Your task to perform on an android device: Open internet settings Image 0: 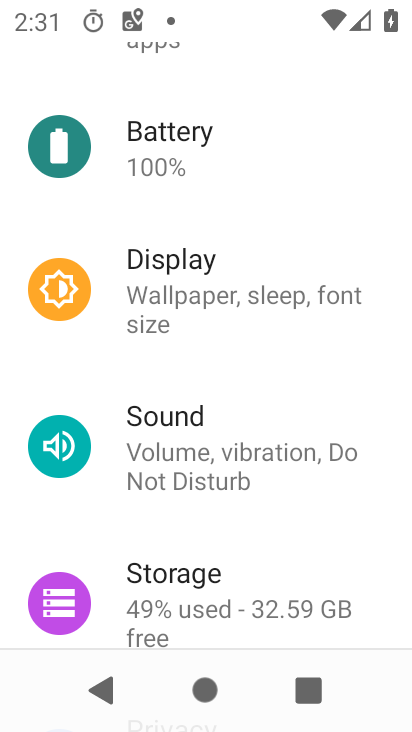
Step 0: drag from (229, 178) to (231, 720)
Your task to perform on an android device: Open internet settings Image 1: 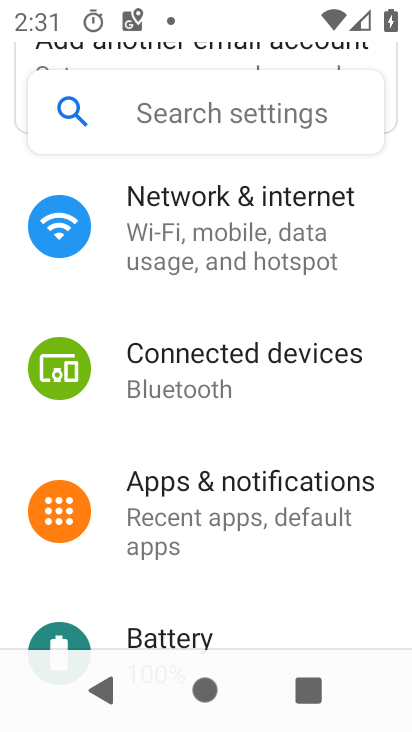
Step 1: drag from (213, 250) to (213, 573)
Your task to perform on an android device: Open internet settings Image 2: 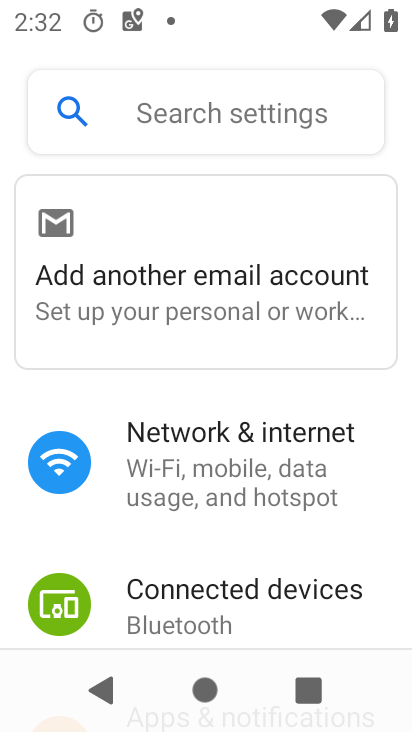
Step 2: click (252, 467)
Your task to perform on an android device: Open internet settings Image 3: 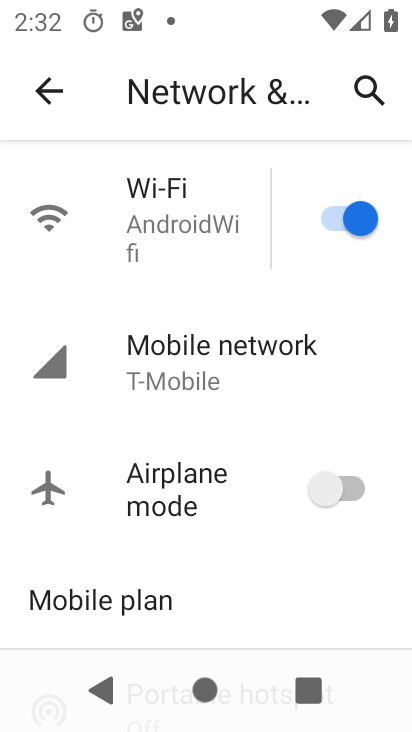
Step 3: task complete